Your task to perform on an android device: change the clock style Image 0: 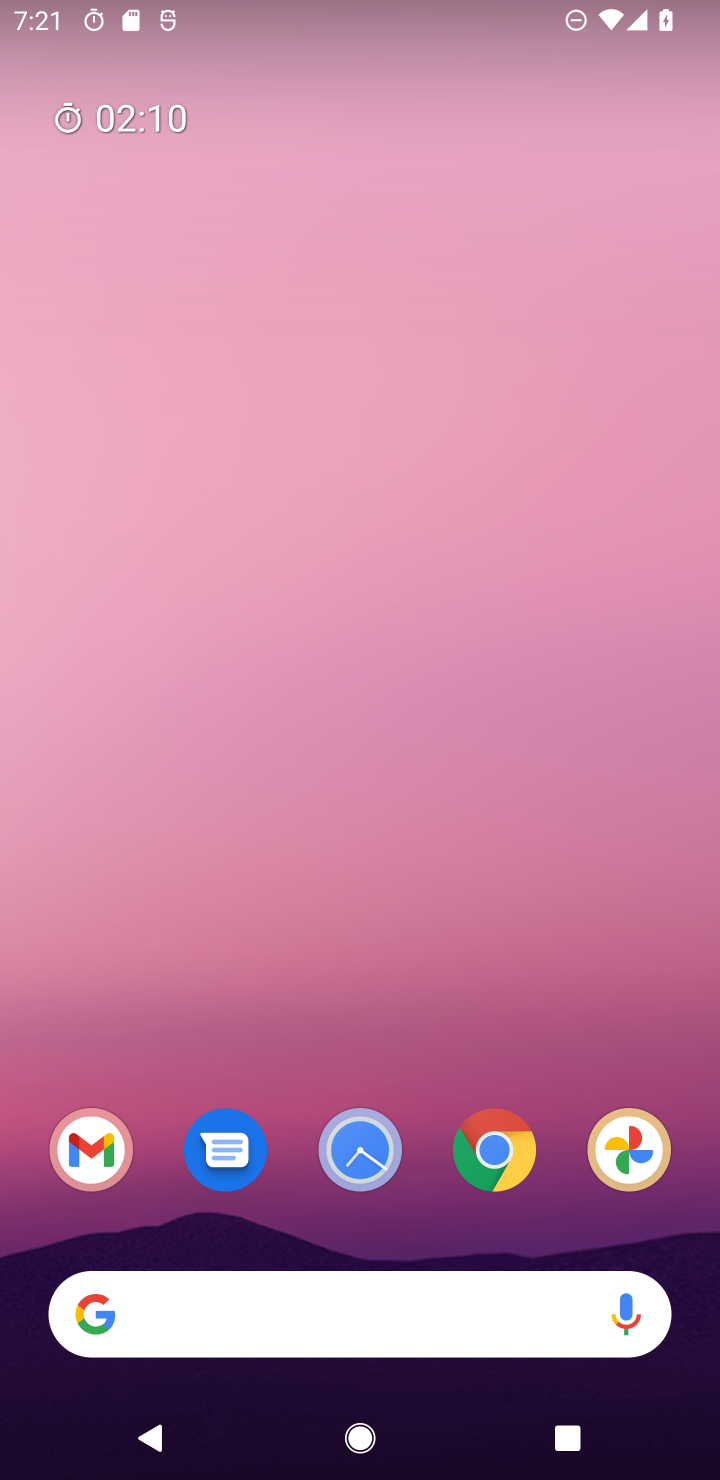
Step 0: drag from (393, 1082) to (627, 9)
Your task to perform on an android device: change the clock style Image 1: 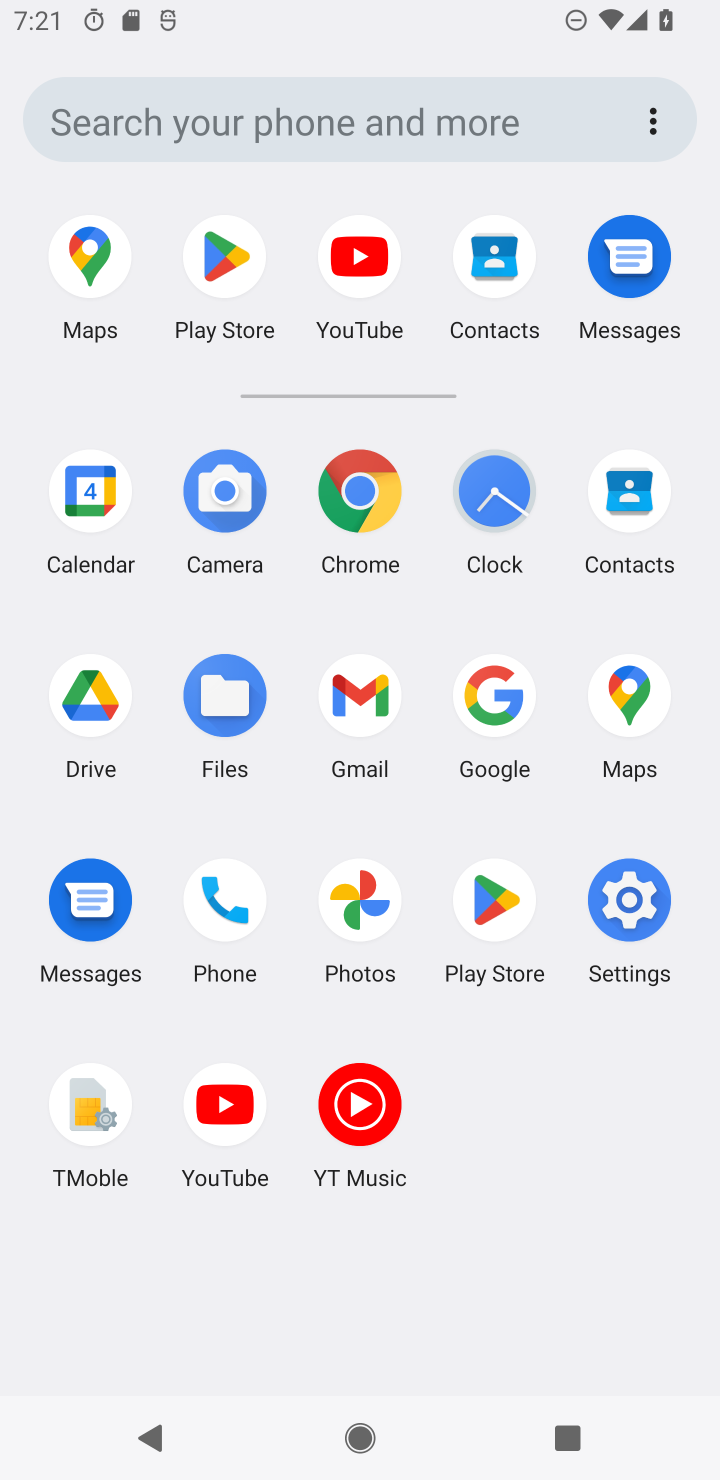
Step 1: click (642, 881)
Your task to perform on an android device: change the clock style Image 2: 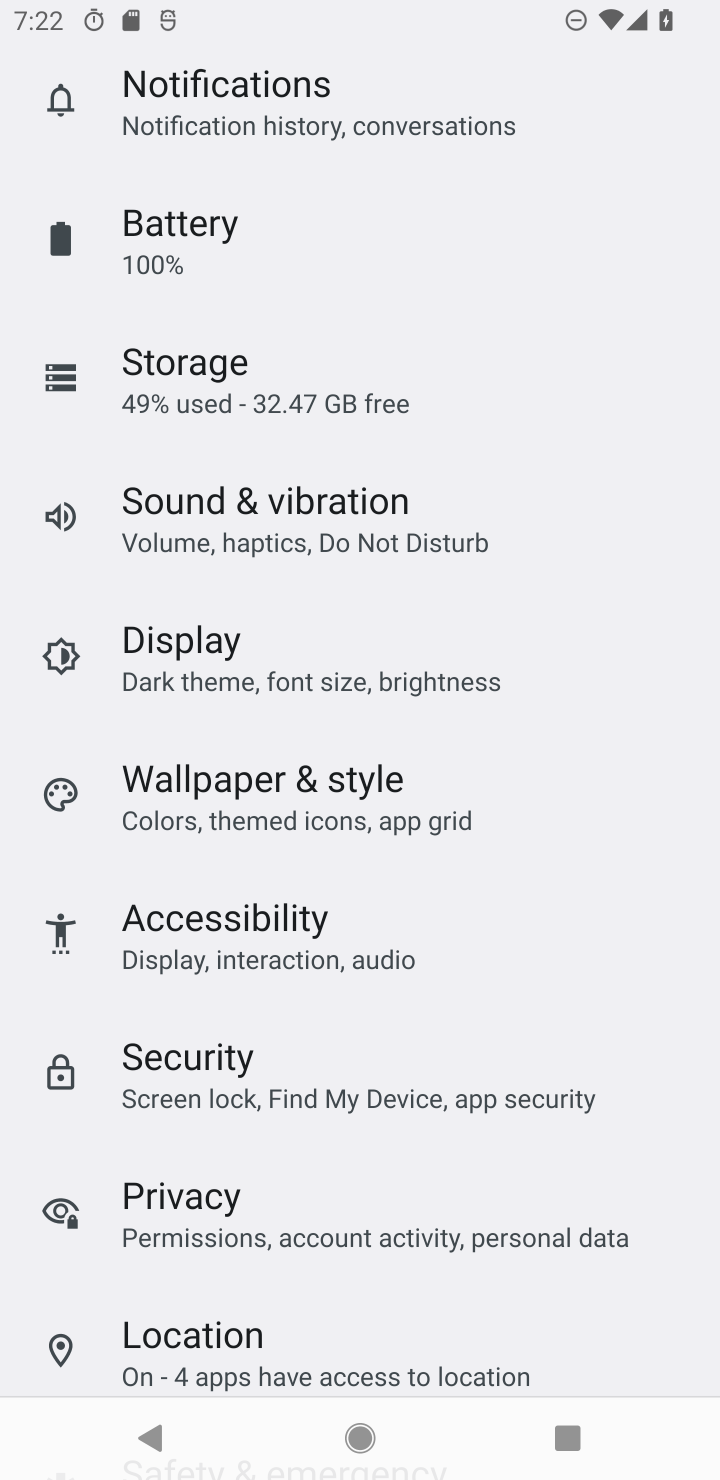
Step 2: press home button
Your task to perform on an android device: change the clock style Image 3: 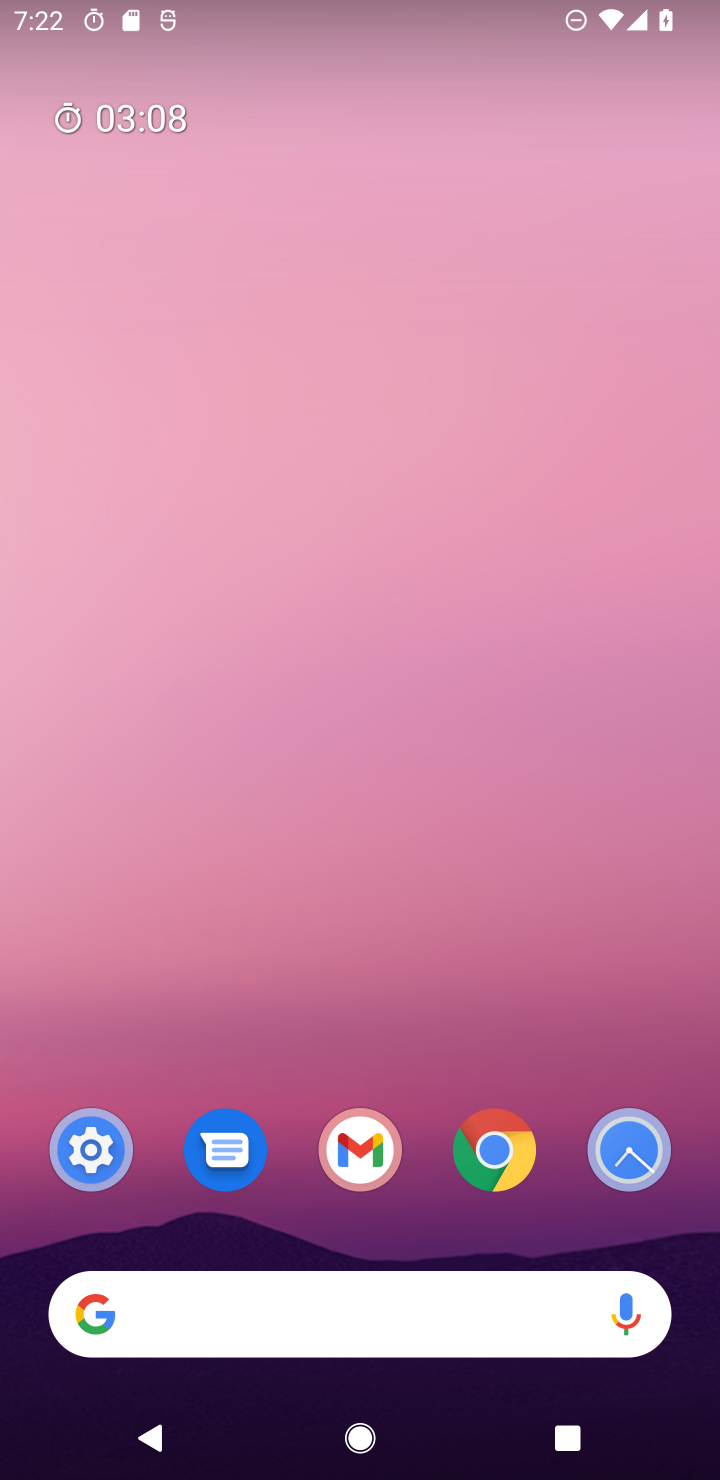
Step 3: drag from (336, 1151) to (712, 162)
Your task to perform on an android device: change the clock style Image 4: 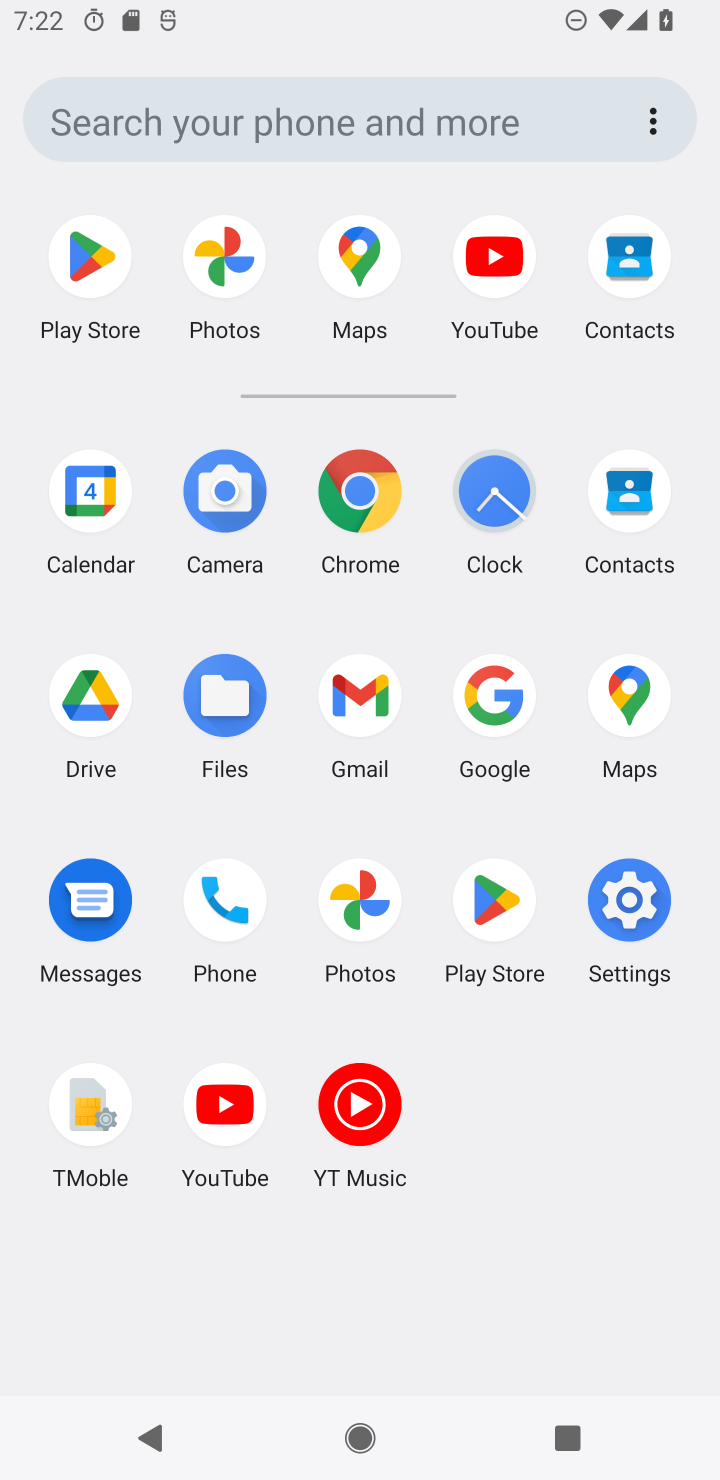
Step 4: click (494, 496)
Your task to perform on an android device: change the clock style Image 5: 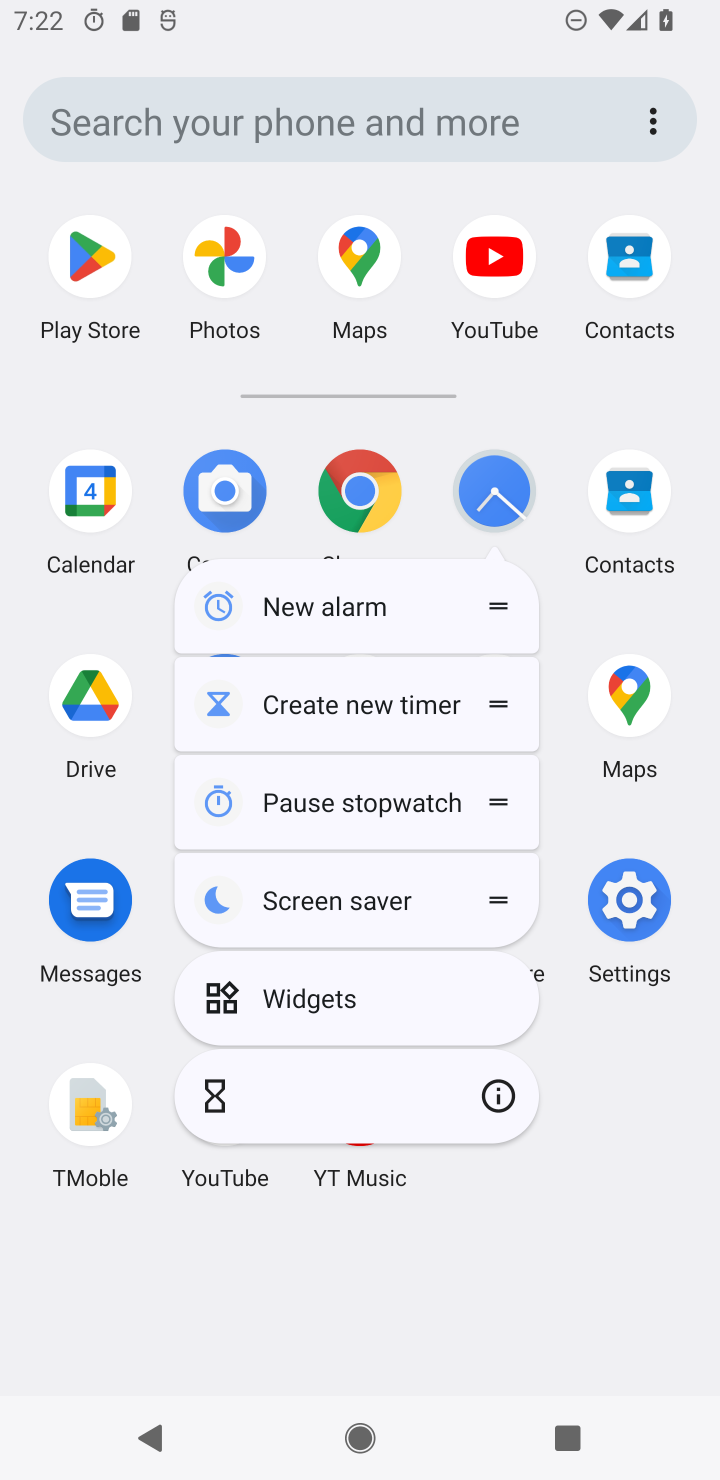
Step 5: click (501, 491)
Your task to perform on an android device: change the clock style Image 6: 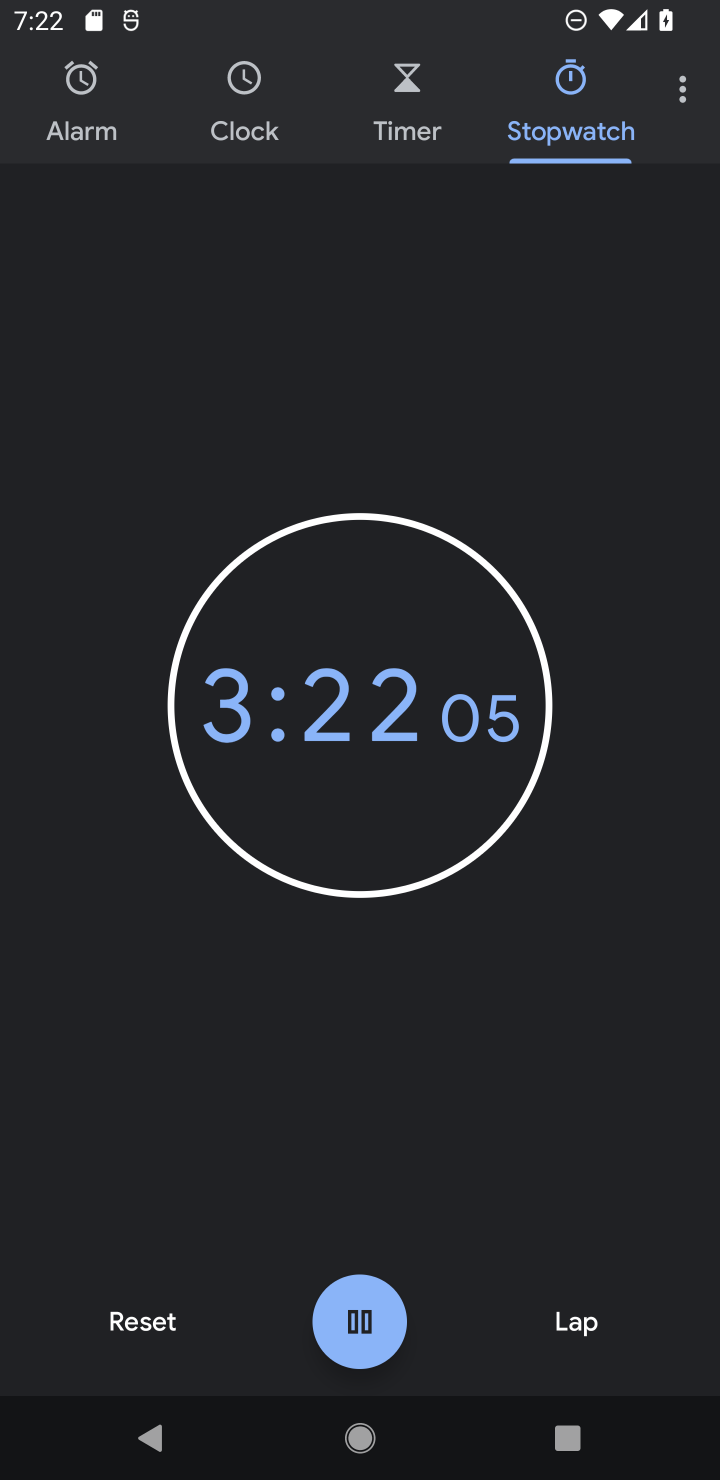
Step 6: click (668, 88)
Your task to perform on an android device: change the clock style Image 7: 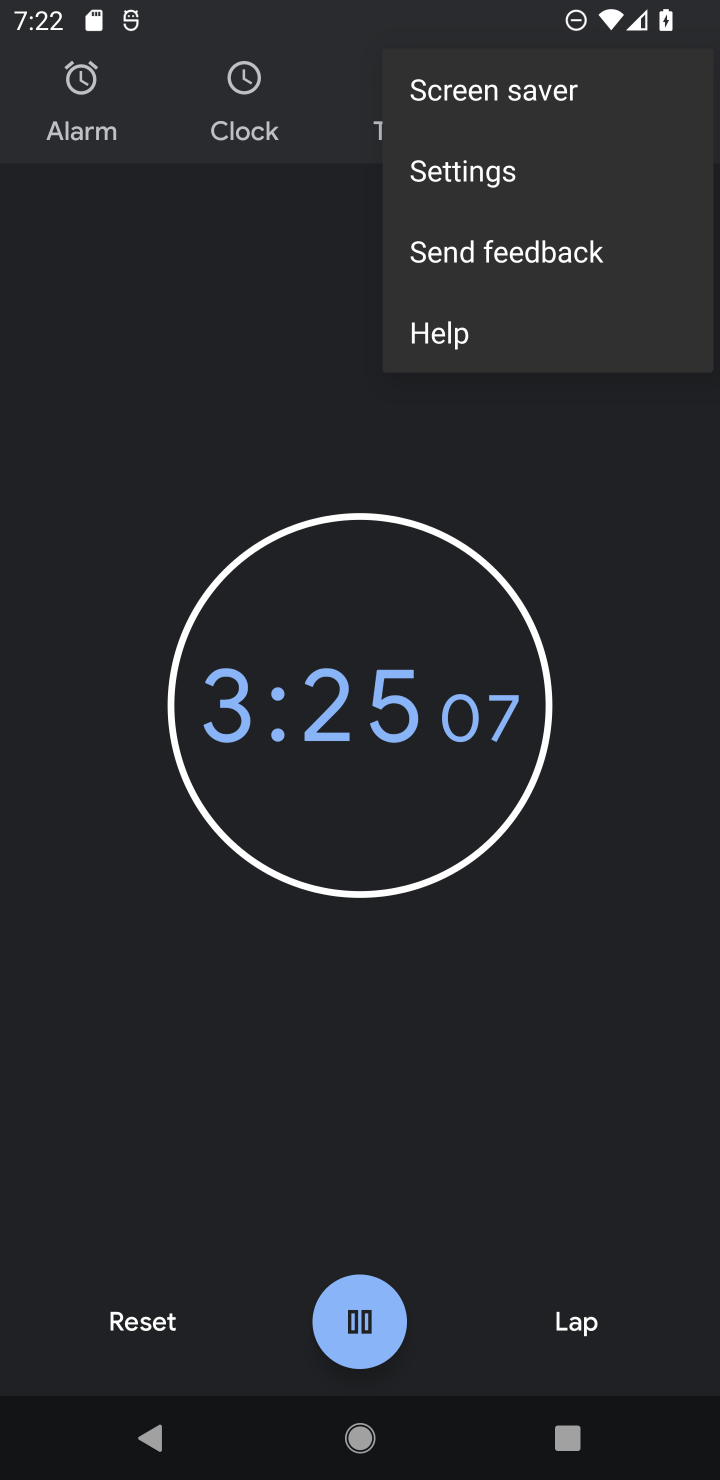
Step 7: click (531, 184)
Your task to perform on an android device: change the clock style Image 8: 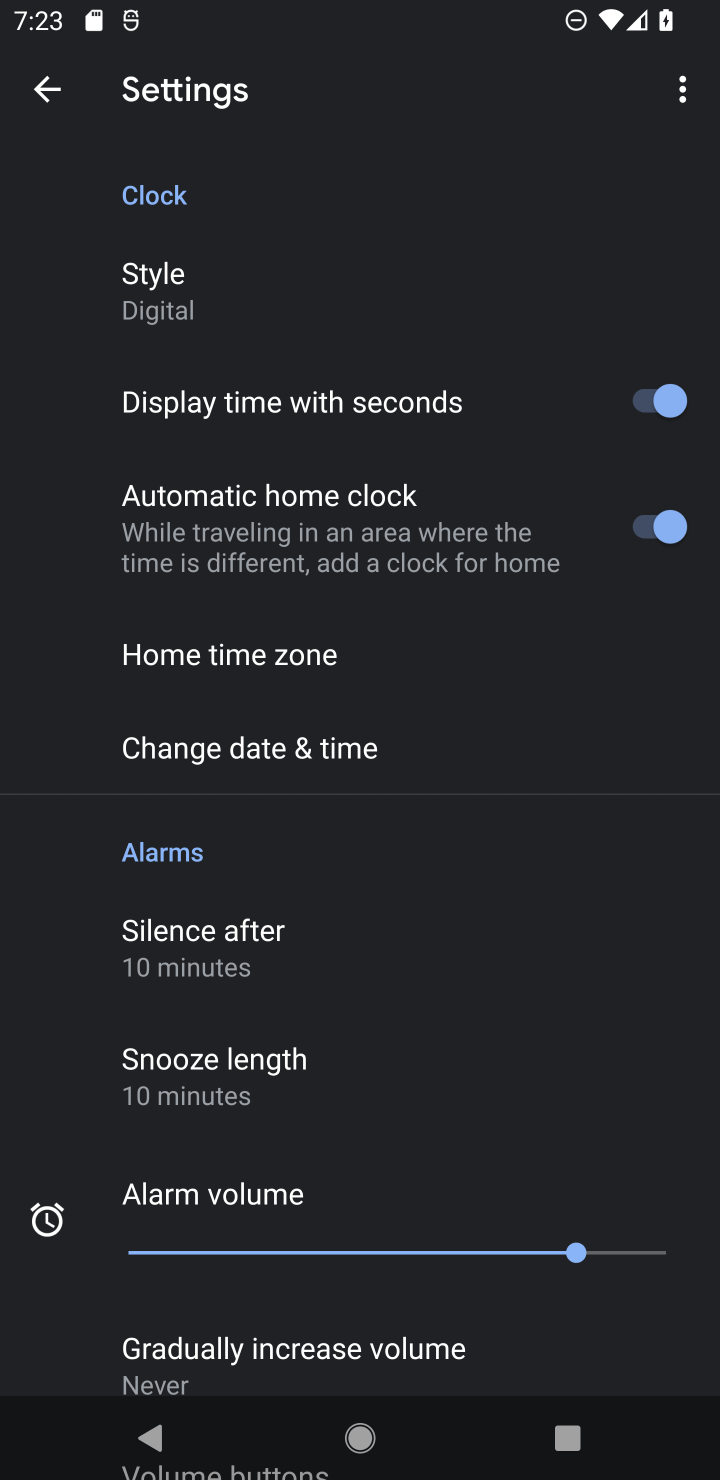
Step 8: click (280, 309)
Your task to perform on an android device: change the clock style Image 9: 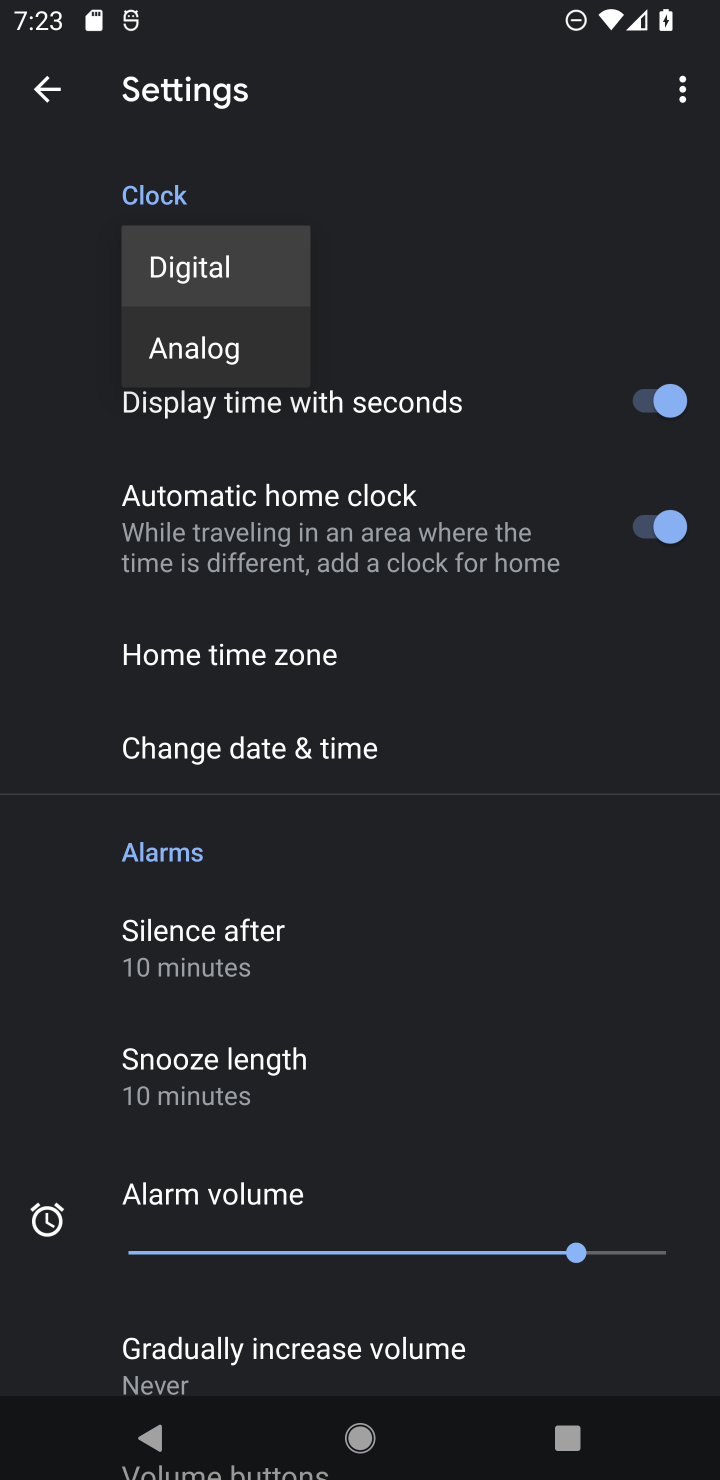
Step 9: click (182, 340)
Your task to perform on an android device: change the clock style Image 10: 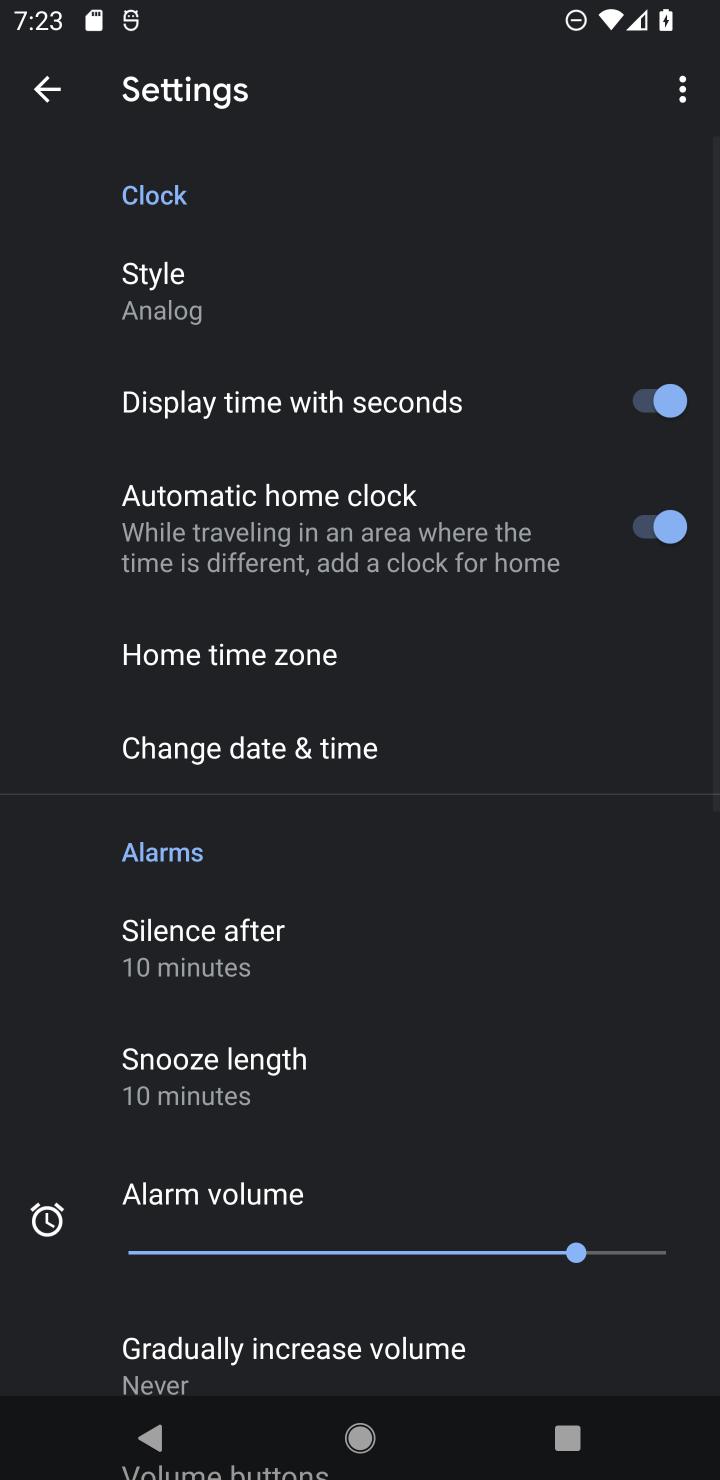
Step 10: task complete